Your task to perform on an android device: Go to location settings Image 0: 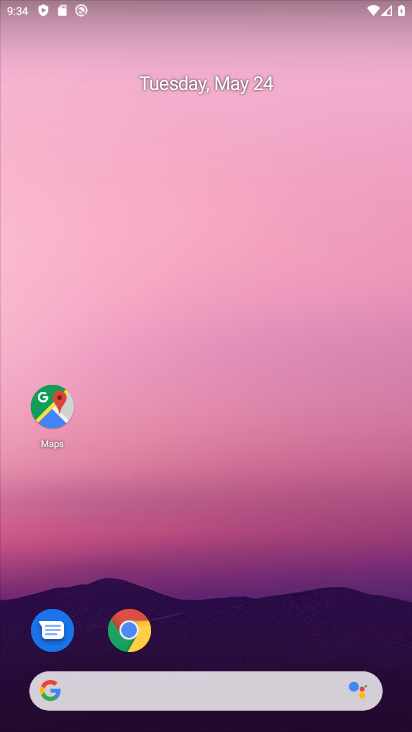
Step 0: drag from (212, 646) to (222, 139)
Your task to perform on an android device: Go to location settings Image 1: 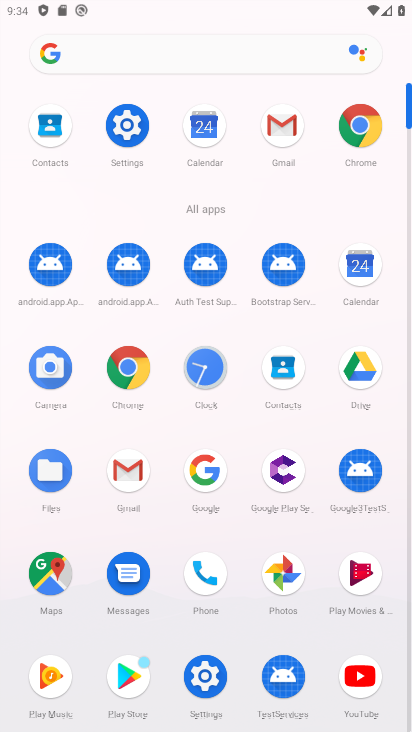
Step 1: click (127, 130)
Your task to perform on an android device: Go to location settings Image 2: 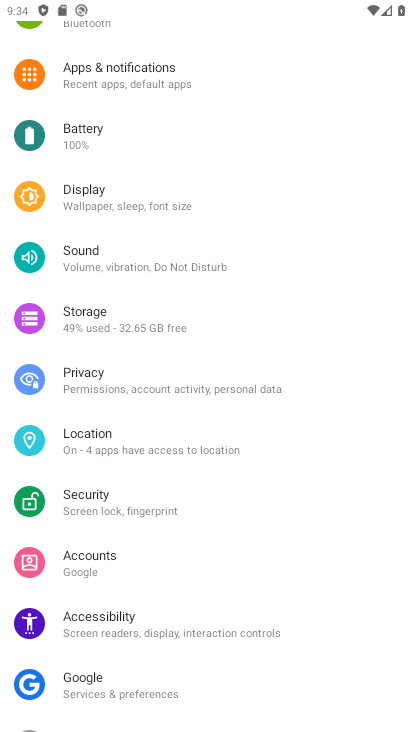
Step 2: click (114, 433)
Your task to perform on an android device: Go to location settings Image 3: 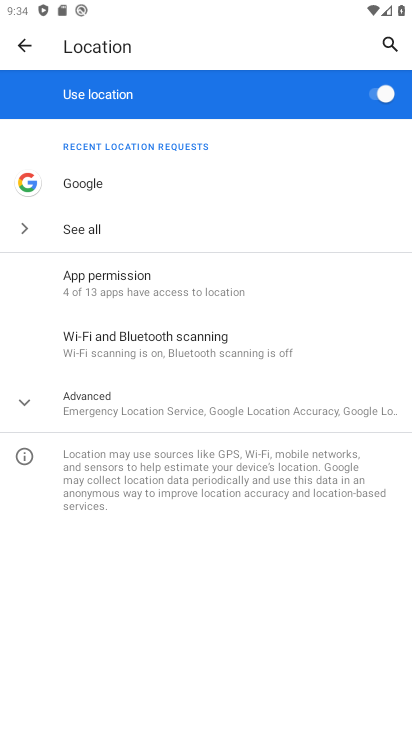
Step 3: click (23, 397)
Your task to perform on an android device: Go to location settings Image 4: 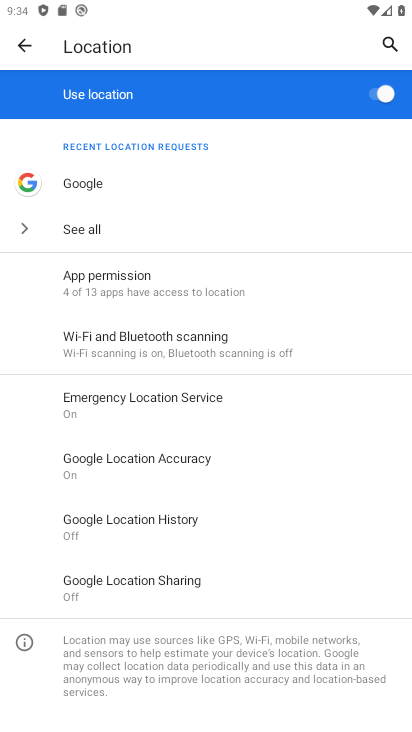
Step 4: task complete